Your task to perform on an android device: Go to accessibility settings Image 0: 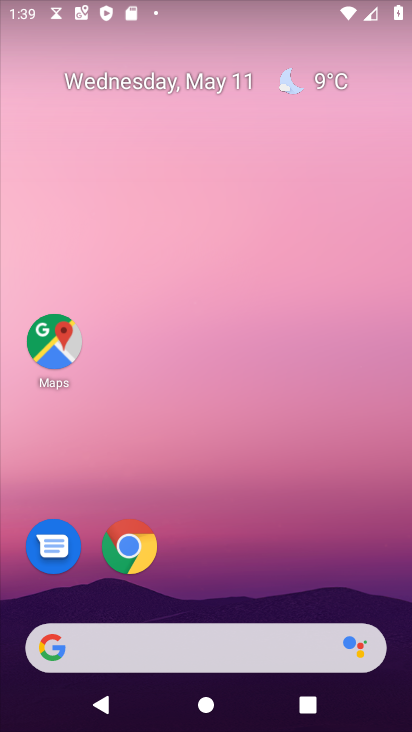
Step 0: drag from (347, 619) to (344, 123)
Your task to perform on an android device: Go to accessibility settings Image 1: 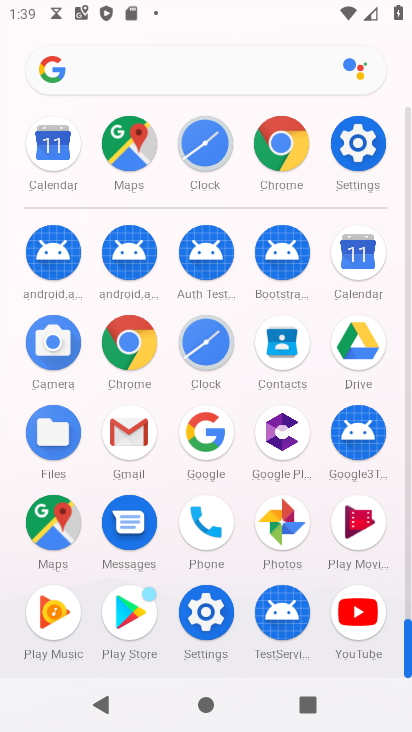
Step 1: click (366, 133)
Your task to perform on an android device: Go to accessibility settings Image 2: 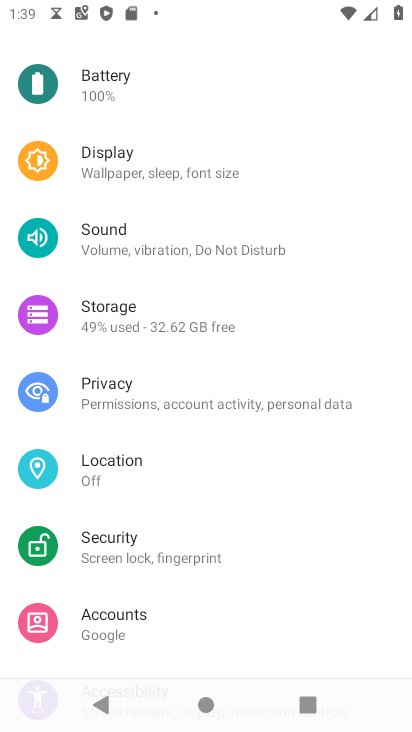
Step 2: drag from (296, 601) to (316, 186)
Your task to perform on an android device: Go to accessibility settings Image 3: 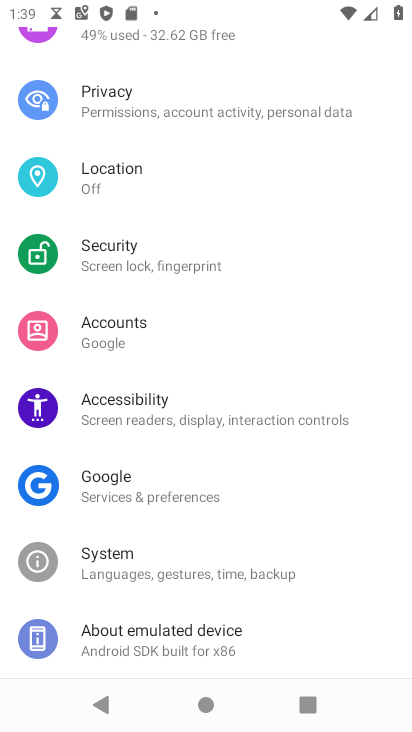
Step 3: click (235, 416)
Your task to perform on an android device: Go to accessibility settings Image 4: 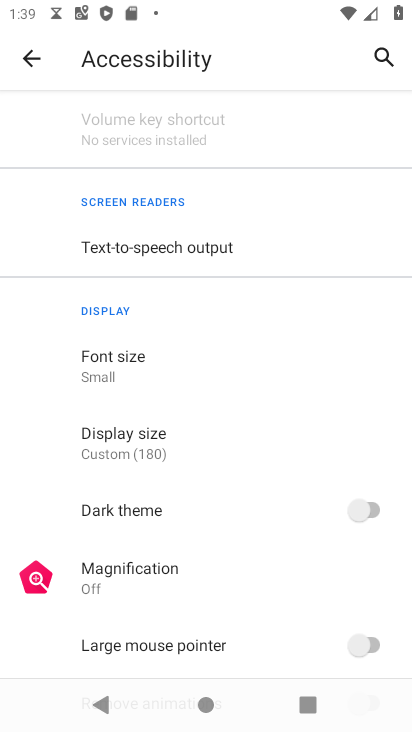
Step 4: task complete